Your task to perform on an android device: open the mobile data screen to see how much data has been used Image 0: 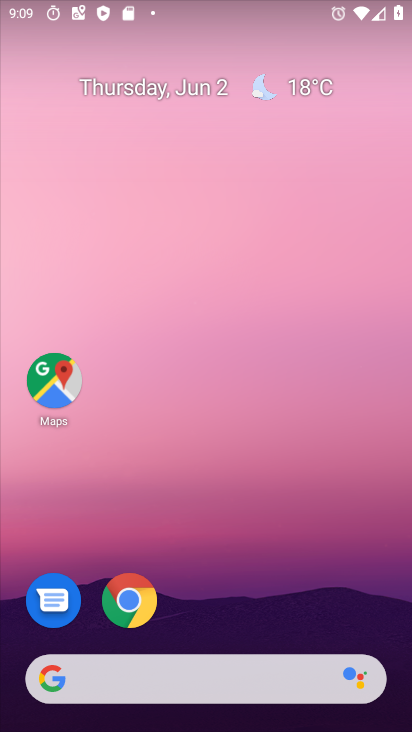
Step 0: drag from (387, 610) to (380, 142)
Your task to perform on an android device: open the mobile data screen to see how much data has been used Image 1: 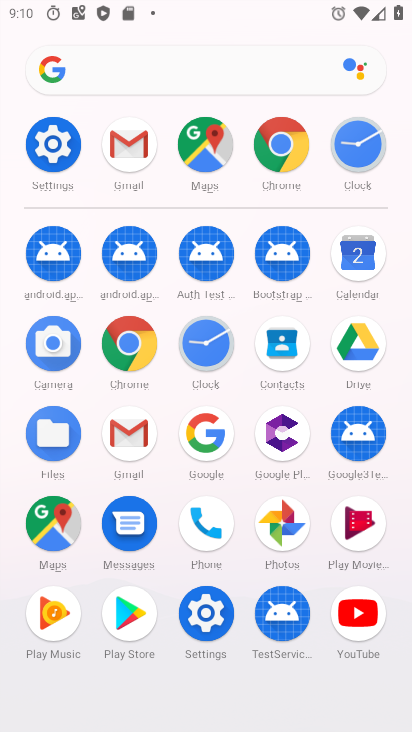
Step 1: click (201, 604)
Your task to perform on an android device: open the mobile data screen to see how much data has been used Image 2: 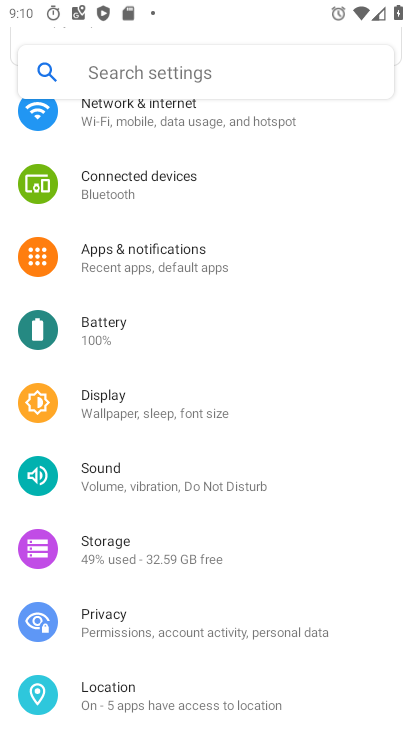
Step 2: drag from (315, 291) to (316, 407)
Your task to perform on an android device: open the mobile data screen to see how much data has been used Image 3: 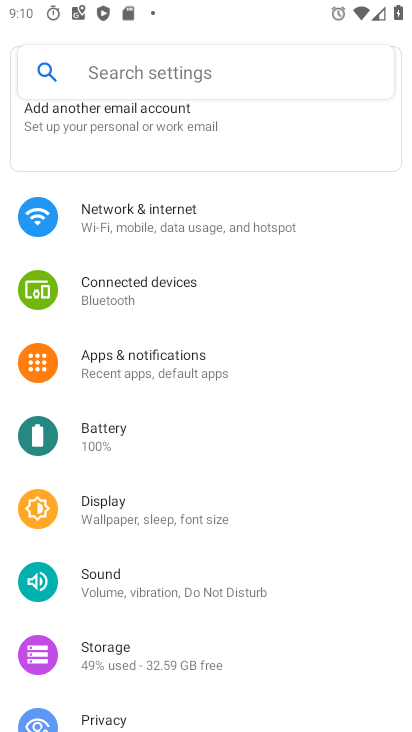
Step 3: drag from (337, 279) to (327, 408)
Your task to perform on an android device: open the mobile data screen to see how much data has been used Image 4: 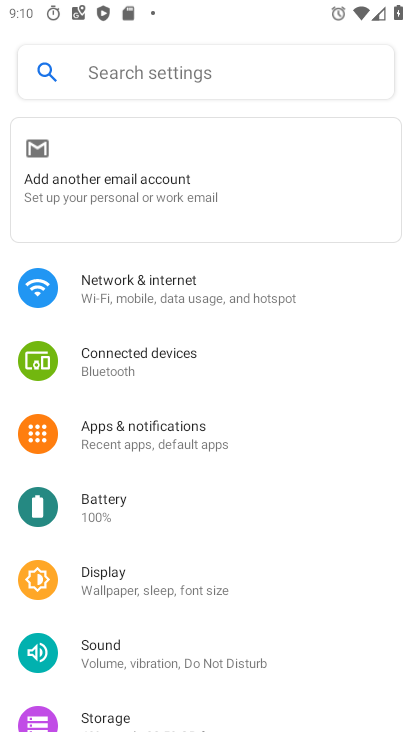
Step 4: drag from (329, 284) to (332, 417)
Your task to perform on an android device: open the mobile data screen to see how much data has been used Image 5: 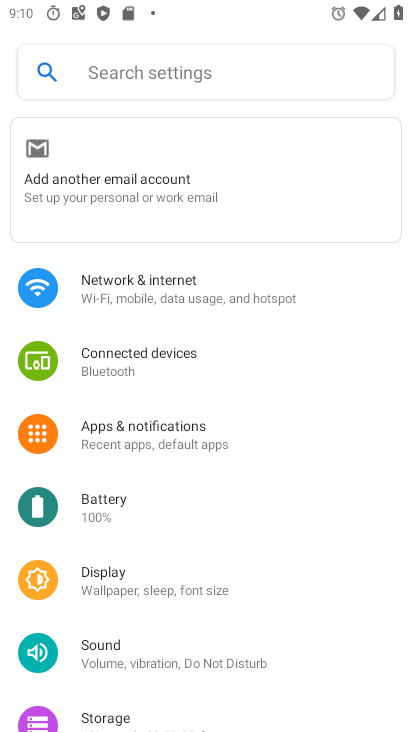
Step 5: click (284, 291)
Your task to perform on an android device: open the mobile data screen to see how much data has been used Image 6: 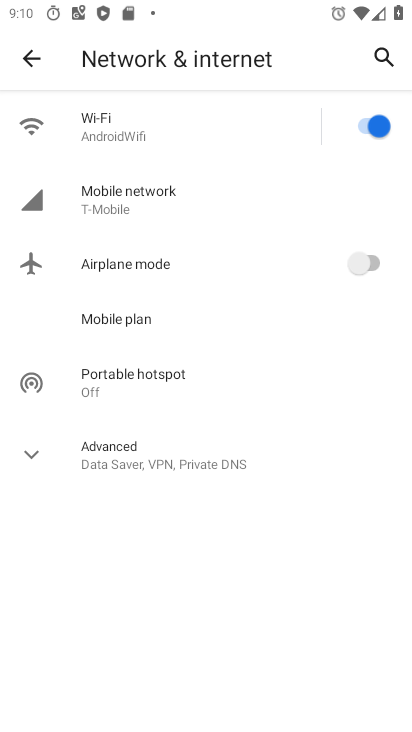
Step 6: click (170, 194)
Your task to perform on an android device: open the mobile data screen to see how much data has been used Image 7: 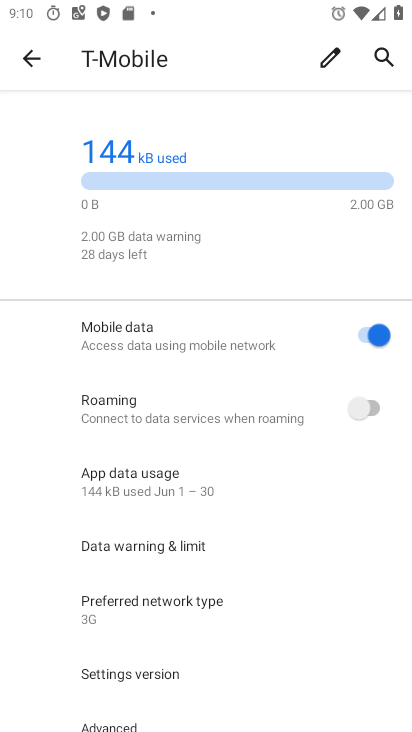
Step 7: drag from (333, 552) to (333, 317)
Your task to perform on an android device: open the mobile data screen to see how much data has been used Image 8: 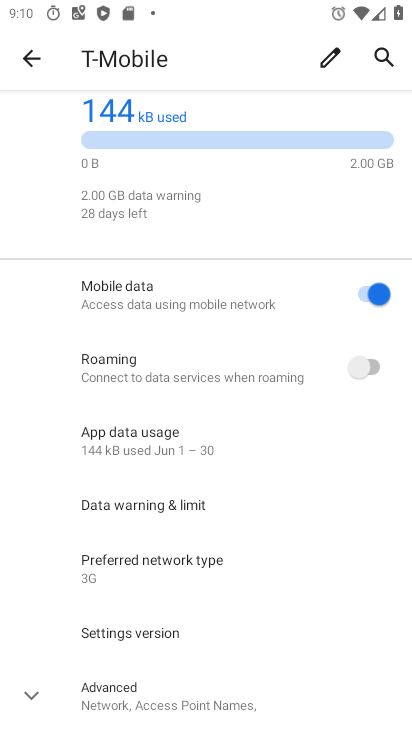
Step 8: click (172, 443)
Your task to perform on an android device: open the mobile data screen to see how much data has been used Image 9: 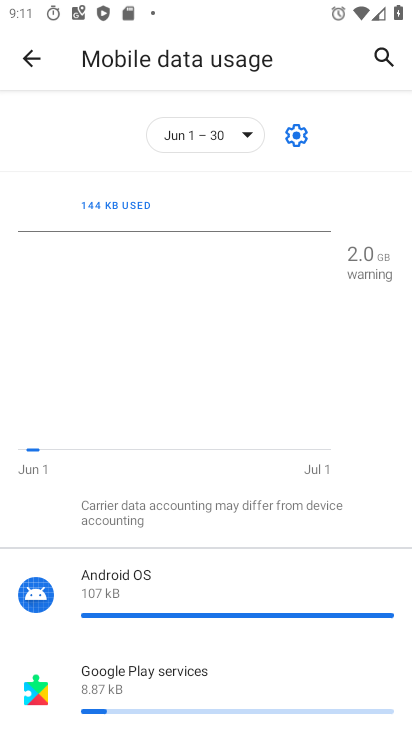
Step 9: task complete